Your task to perform on an android device: change your default location settings in chrome Image 0: 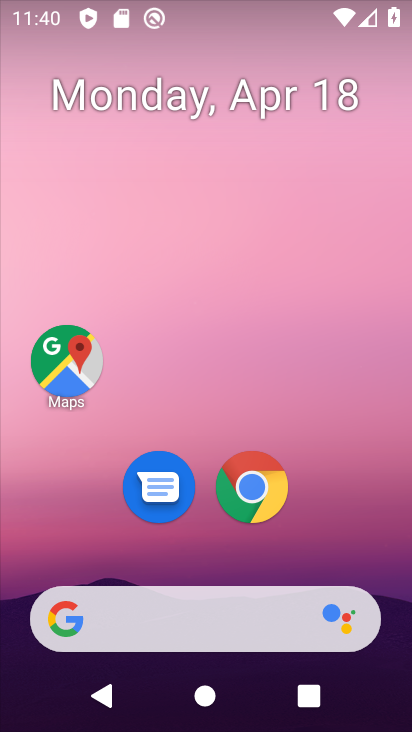
Step 0: click (272, 489)
Your task to perform on an android device: change your default location settings in chrome Image 1: 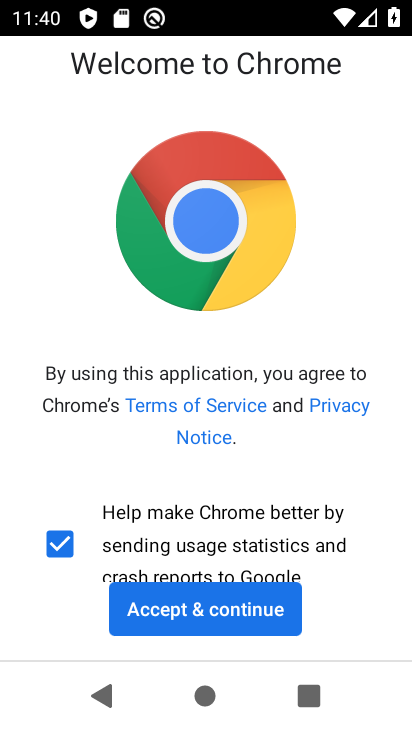
Step 1: click (290, 607)
Your task to perform on an android device: change your default location settings in chrome Image 2: 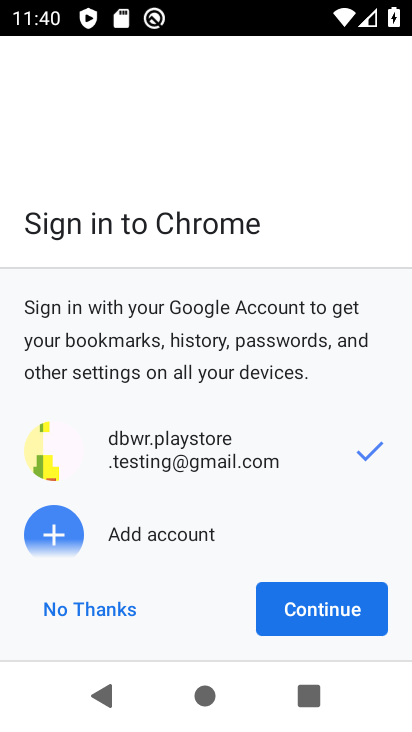
Step 2: click (290, 607)
Your task to perform on an android device: change your default location settings in chrome Image 3: 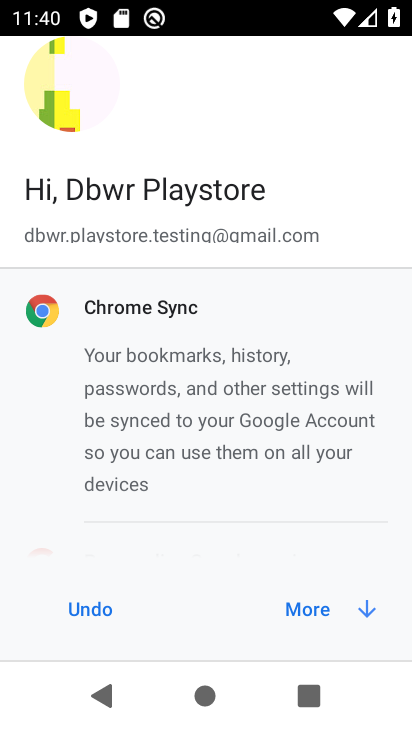
Step 3: click (294, 601)
Your task to perform on an android device: change your default location settings in chrome Image 4: 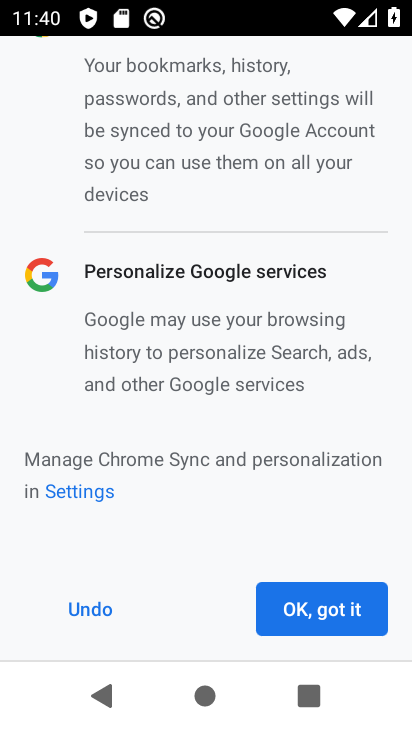
Step 4: click (294, 601)
Your task to perform on an android device: change your default location settings in chrome Image 5: 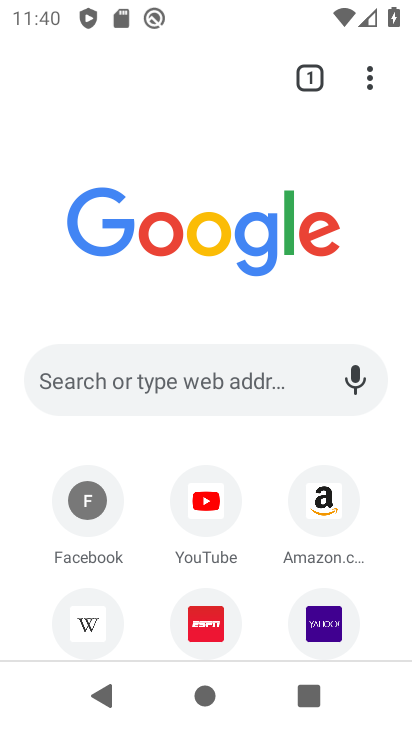
Step 5: drag from (368, 79) to (109, 560)
Your task to perform on an android device: change your default location settings in chrome Image 6: 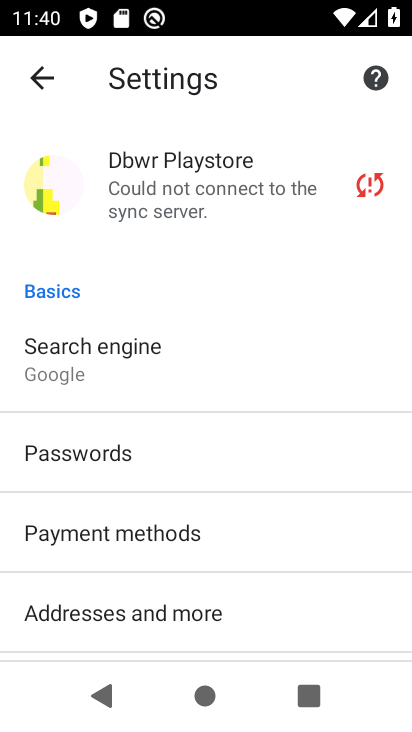
Step 6: drag from (359, 601) to (108, 209)
Your task to perform on an android device: change your default location settings in chrome Image 7: 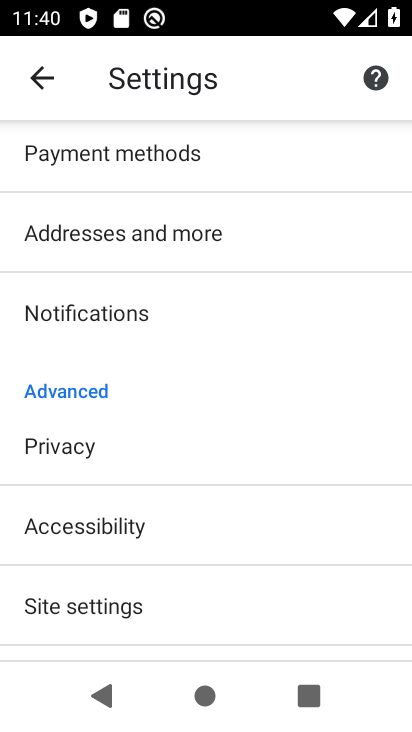
Step 7: click (111, 610)
Your task to perform on an android device: change your default location settings in chrome Image 8: 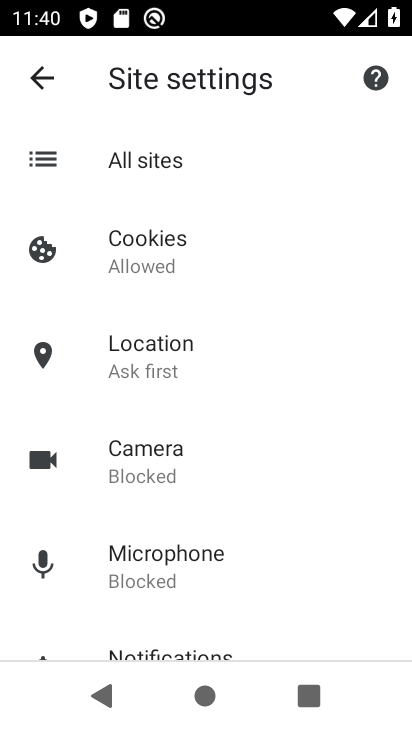
Step 8: click (127, 337)
Your task to perform on an android device: change your default location settings in chrome Image 9: 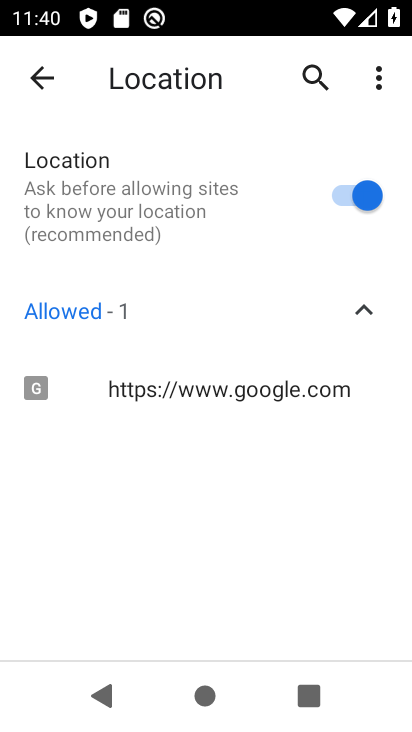
Step 9: click (61, 312)
Your task to perform on an android device: change your default location settings in chrome Image 10: 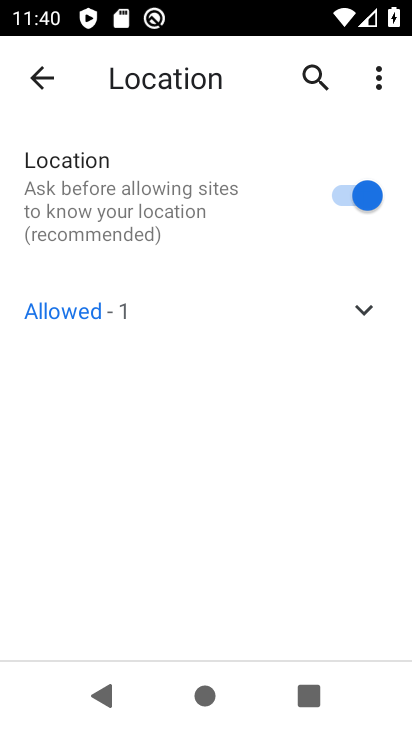
Step 10: click (107, 313)
Your task to perform on an android device: change your default location settings in chrome Image 11: 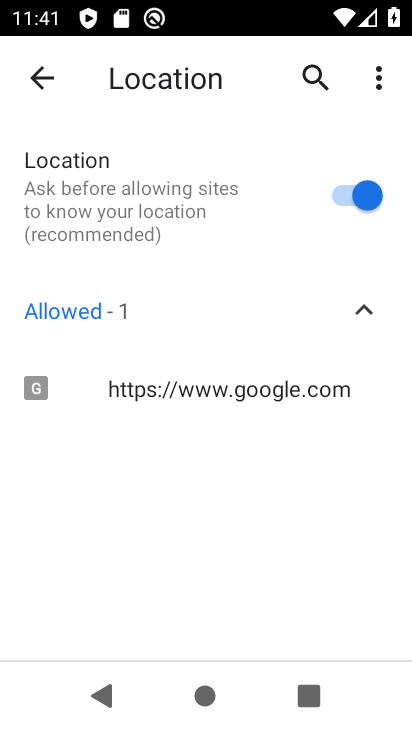
Step 11: click (232, 389)
Your task to perform on an android device: change your default location settings in chrome Image 12: 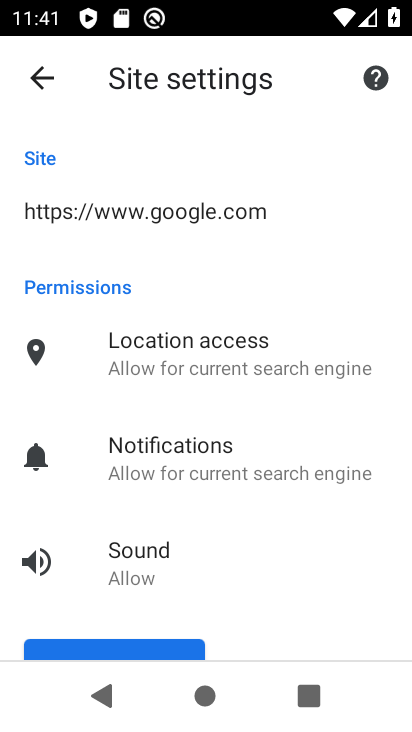
Step 12: click (174, 354)
Your task to perform on an android device: change your default location settings in chrome Image 13: 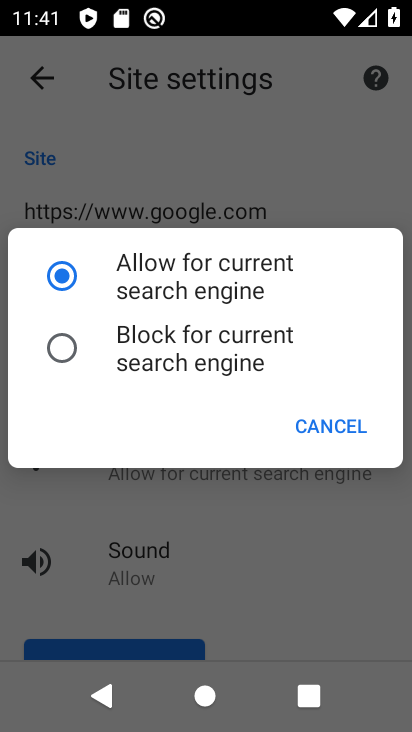
Step 13: click (219, 346)
Your task to perform on an android device: change your default location settings in chrome Image 14: 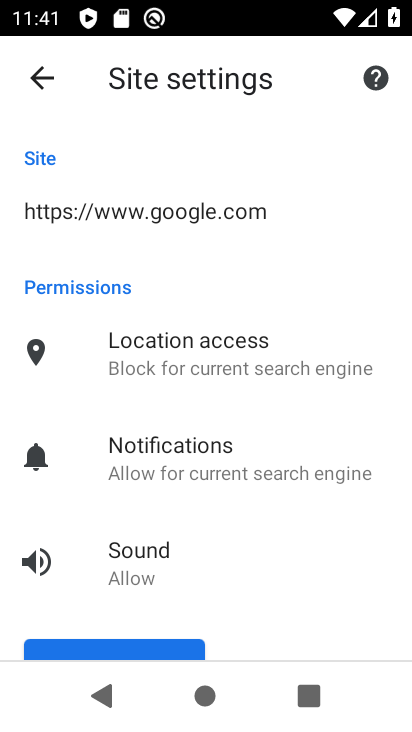
Step 14: task complete